Your task to perform on an android device: Clear the shopping cart on amazon. Image 0: 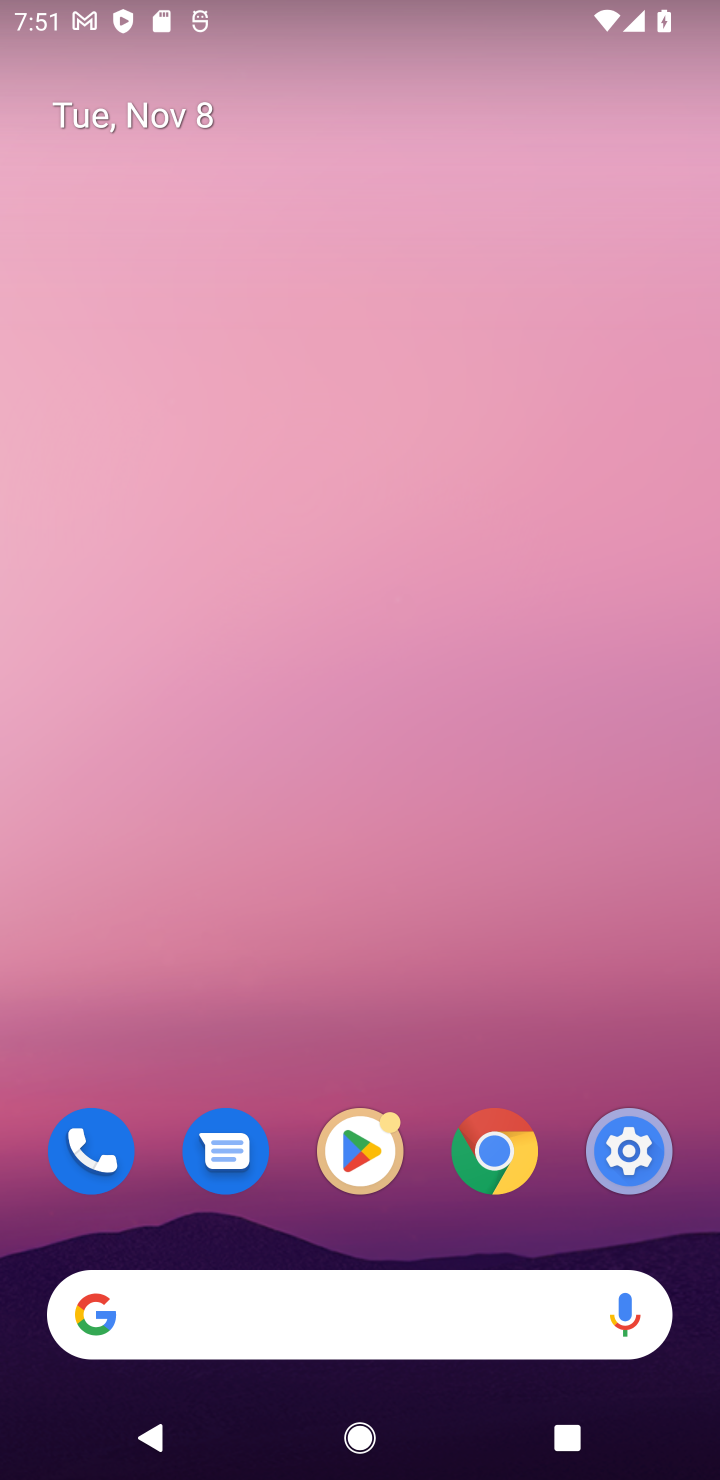
Step 0: click (287, 1346)
Your task to perform on an android device: Clear the shopping cart on amazon. Image 1: 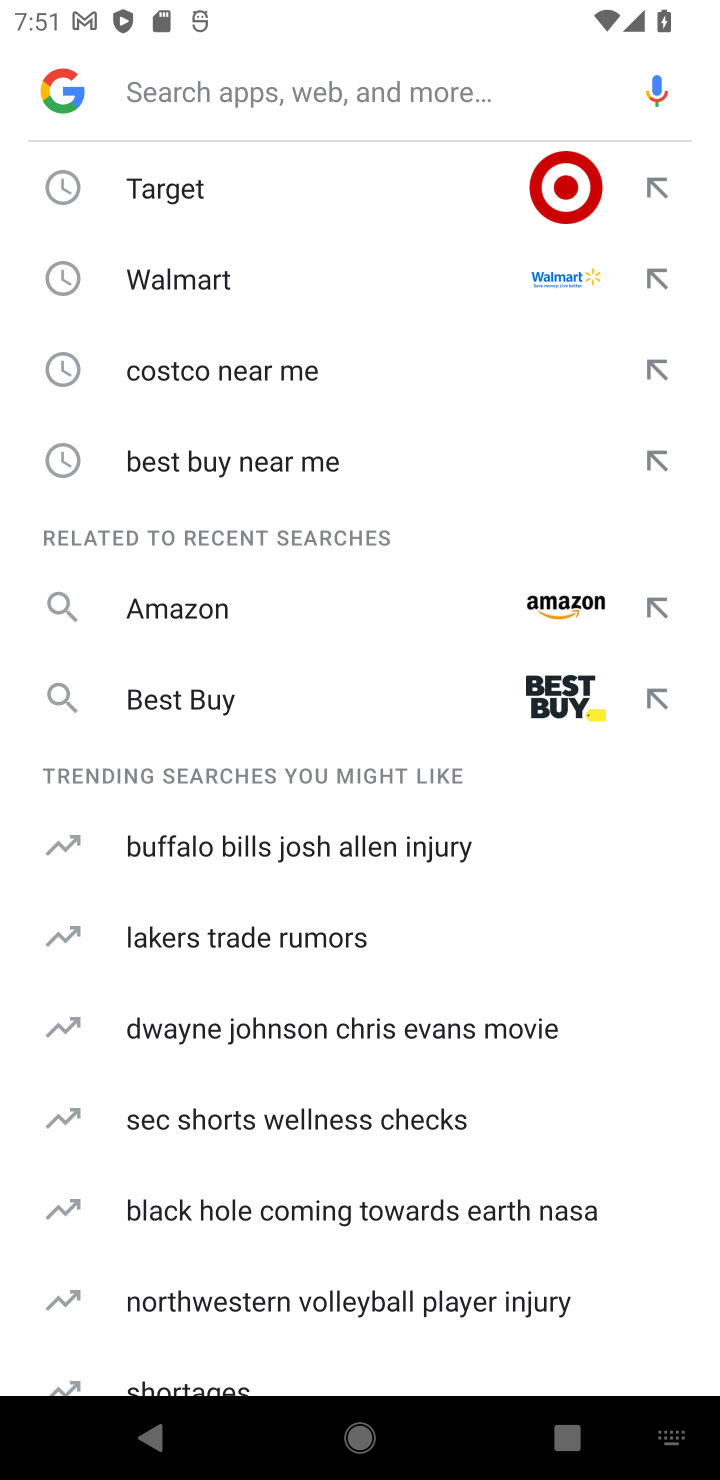
Step 1: click (305, 609)
Your task to perform on an android device: Clear the shopping cart on amazon. Image 2: 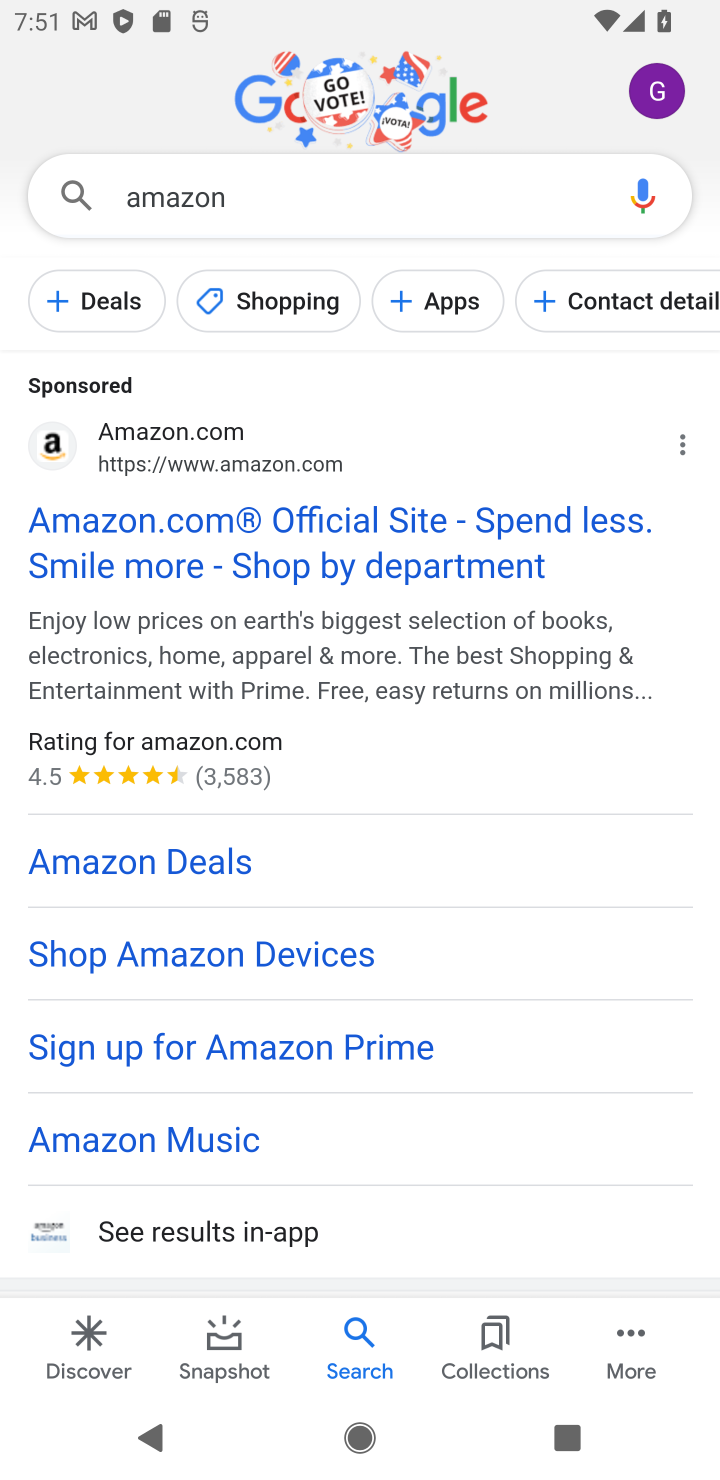
Step 2: click (316, 495)
Your task to perform on an android device: Clear the shopping cart on amazon. Image 3: 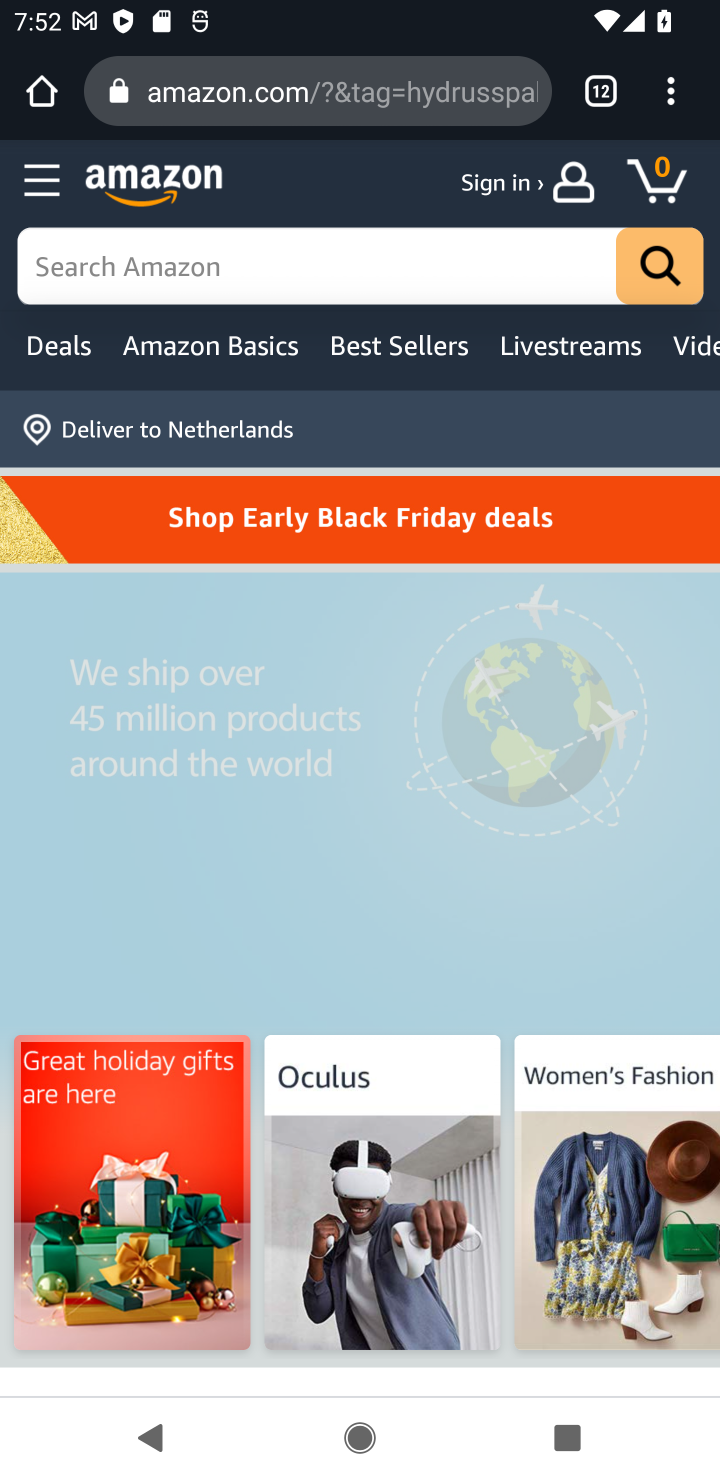
Step 3: click (314, 270)
Your task to perform on an android device: Clear the shopping cart on amazon. Image 4: 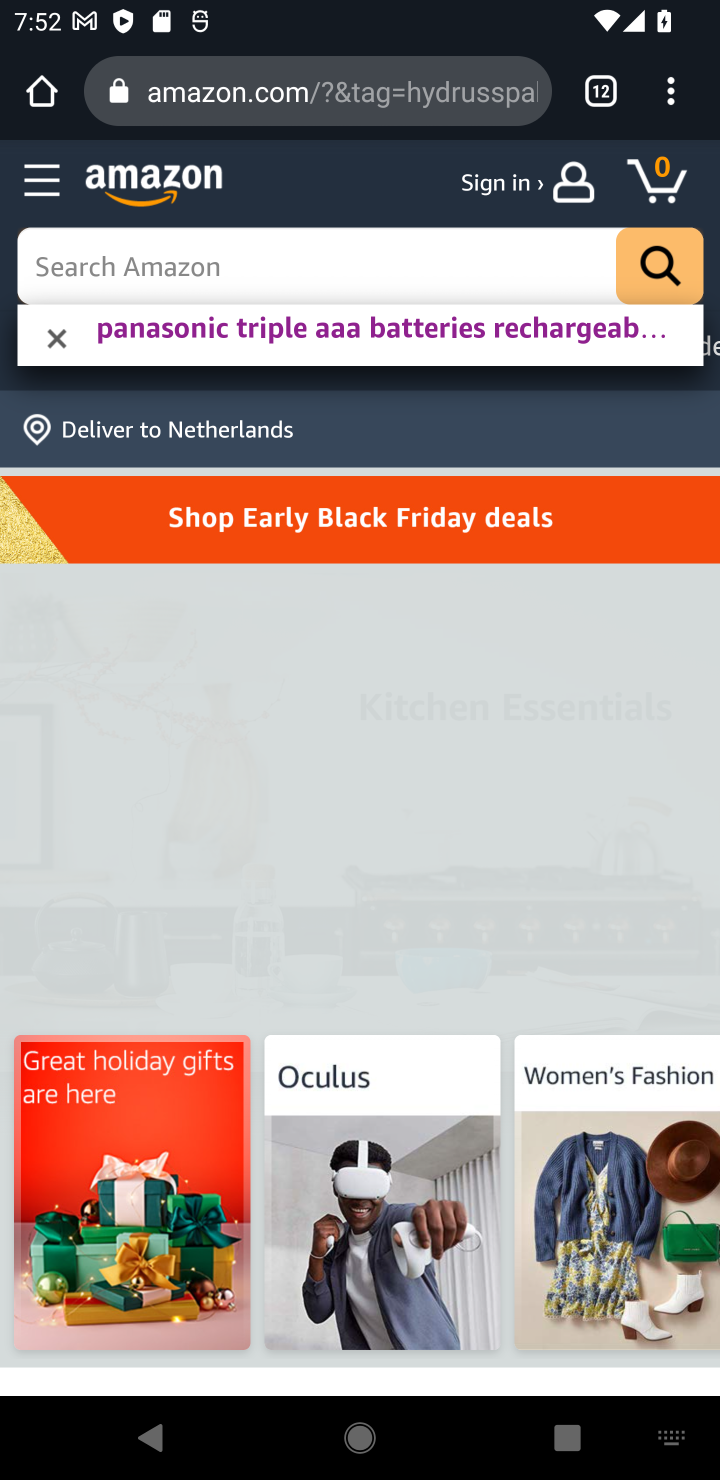
Step 4: click (651, 174)
Your task to perform on an android device: Clear the shopping cart on amazon. Image 5: 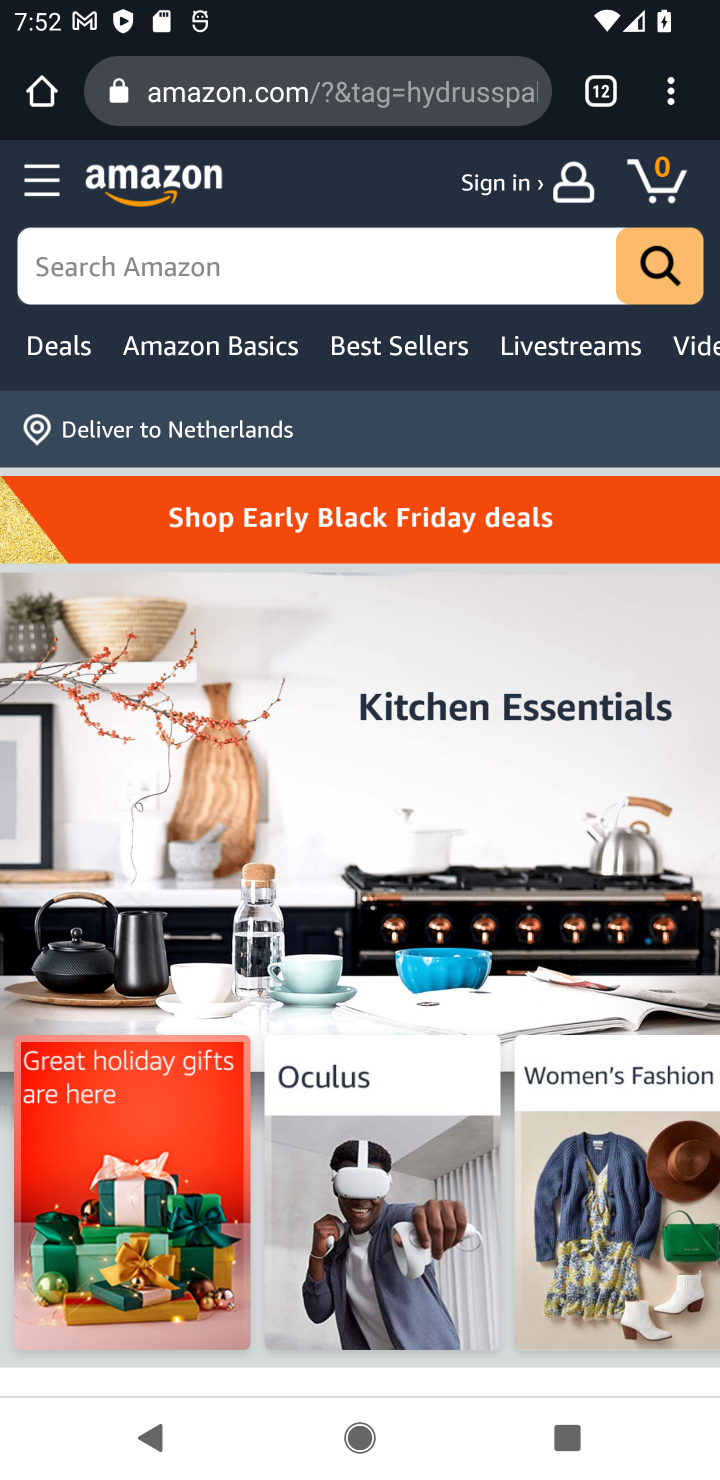
Step 5: task complete